Your task to perform on an android device: turn on priority inbox in the gmail app Image 0: 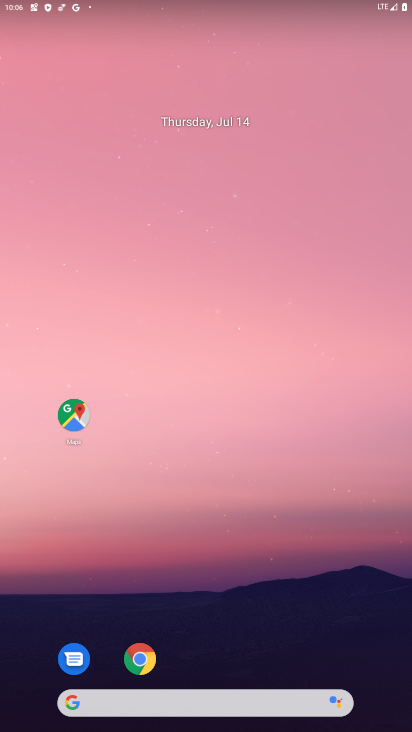
Step 0: drag from (316, 619) to (281, 257)
Your task to perform on an android device: turn on priority inbox in the gmail app Image 1: 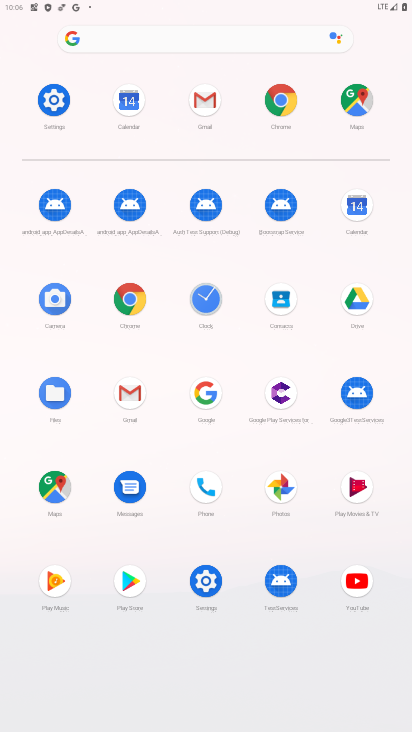
Step 1: click (128, 389)
Your task to perform on an android device: turn on priority inbox in the gmail app Image 2: 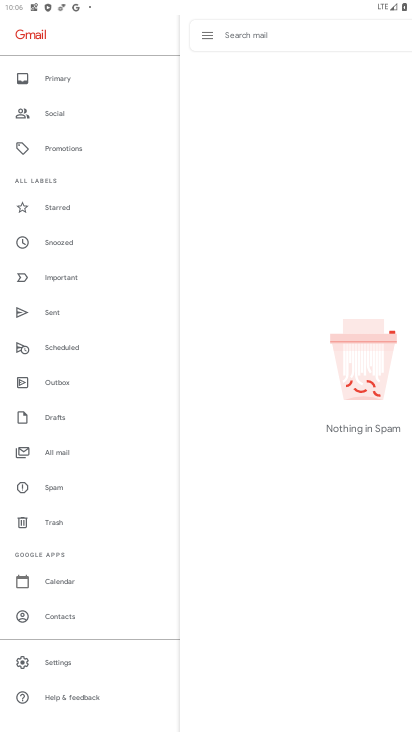
Step 2: click (58, 669)
Your task to perform on an android device: turn on priority inbox in the gmail app Image 3: 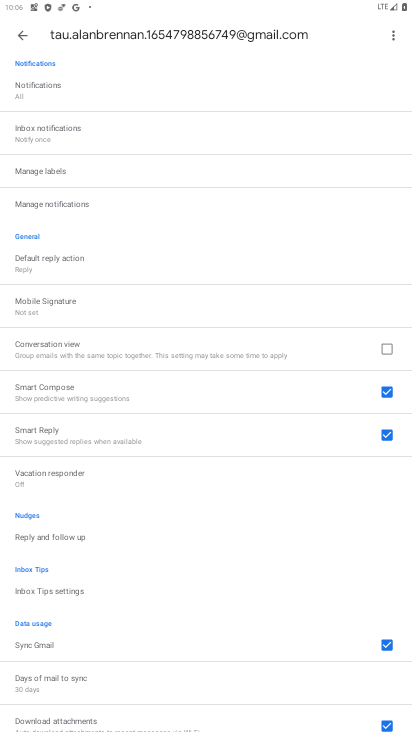
Step 3: drag from (218, 187) to (139, 548)
Your task to perform on an android device: turn on priority inbox in the gmail app Image 4: 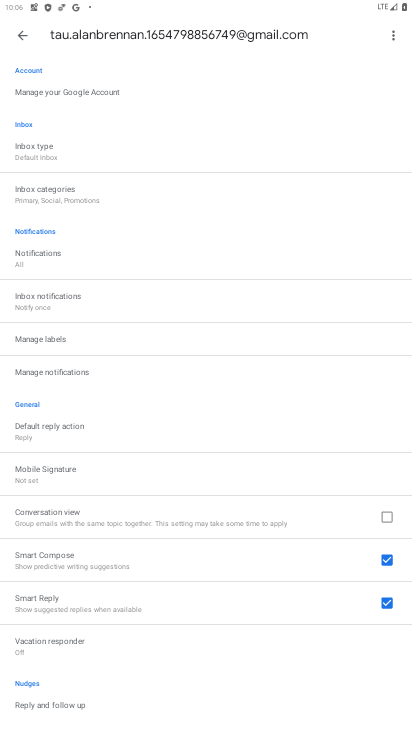
Step 4: click (44, 147)
Your task to perform on an android device: turn on priority inbox in the gmail app Image 5: 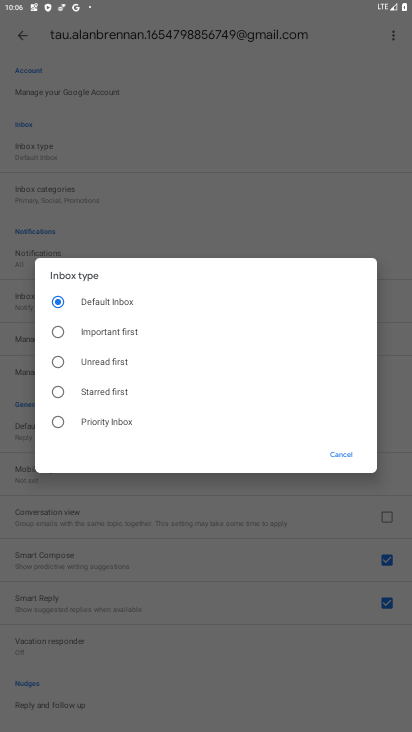
Step 5: task complete